Your task to perform on an android device: change the clock display to analog Image 0: 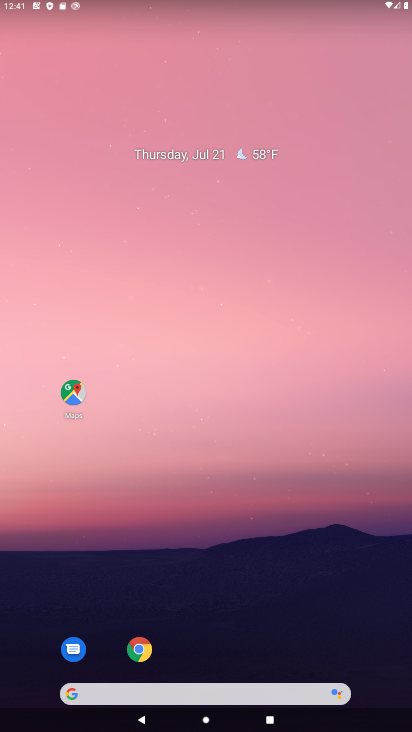
Step 0: drag from (382, 647) to (327, 143)
Your task to perform on an android device: change the clock display to analog Image 1: 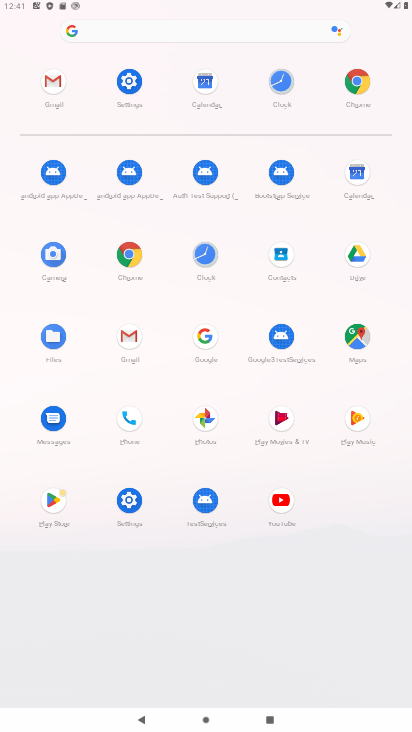
Step 1: click (205, 256)
Your task to perform on an android device: change the clock display to analog Image 2: 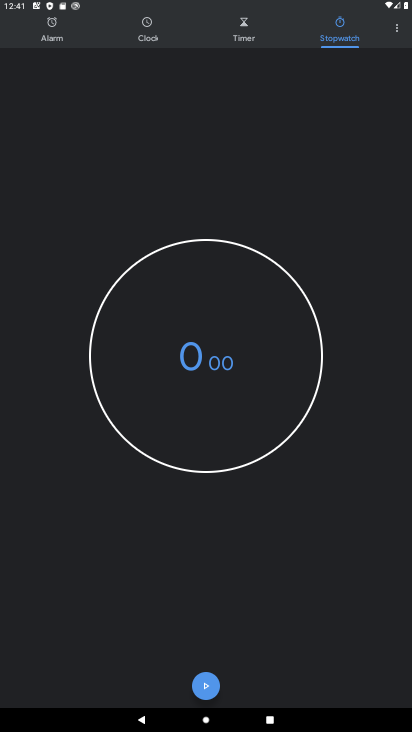
Step 2: click (397, 34)
Your task to perform on an android device: change the clock display to analog Image 3: 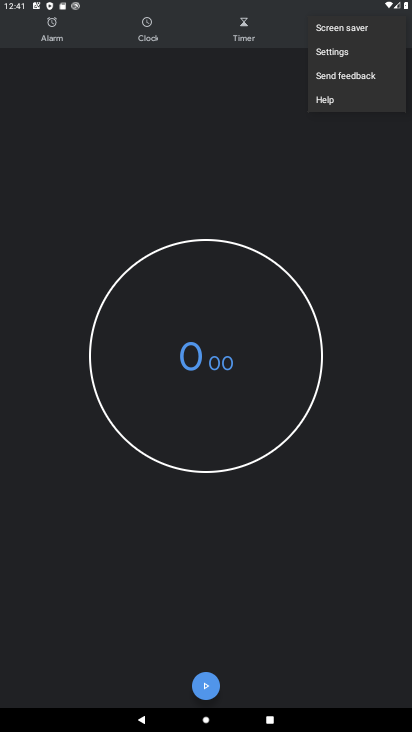
Step 3: click (323, 52)
Your task to perform on an android device: change the clock display to analog Image 4: 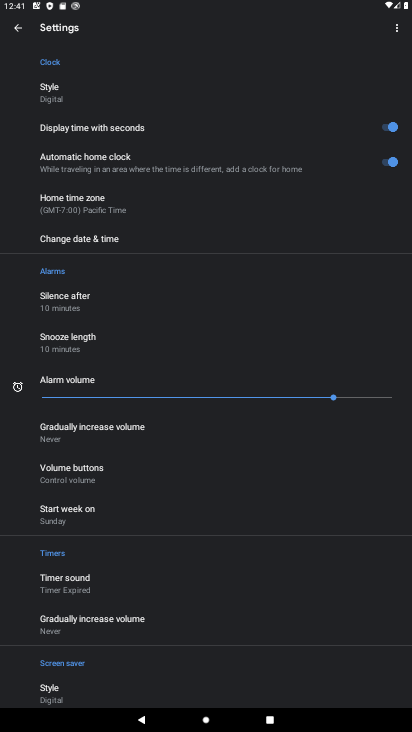
Step 4: click (46, 92)
Your task to perform on an android device: change the clock display to analog Image 5: 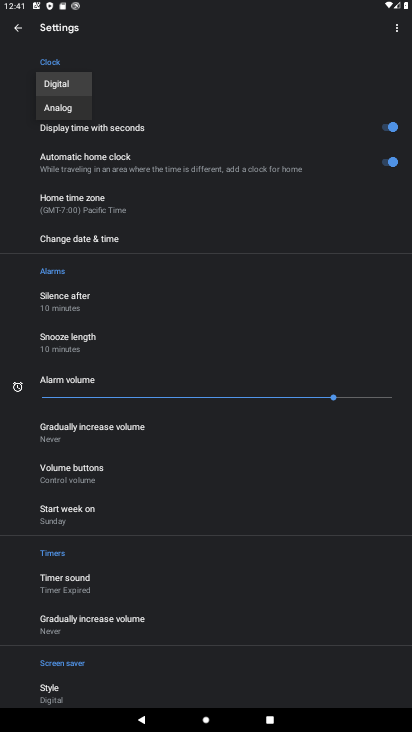
Step 5: click (64, 109)
Your task to perform on an android device: change the clock display to analog Image 6: 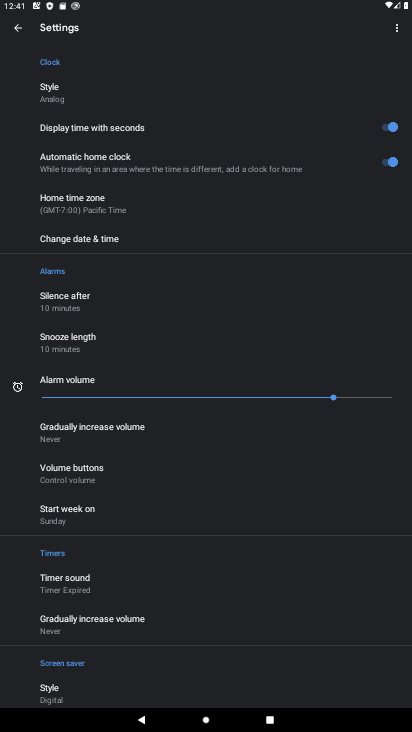
Step 6: task complete